Your task to perform on an android device: turn on the 24-hour format for clock Image 0: 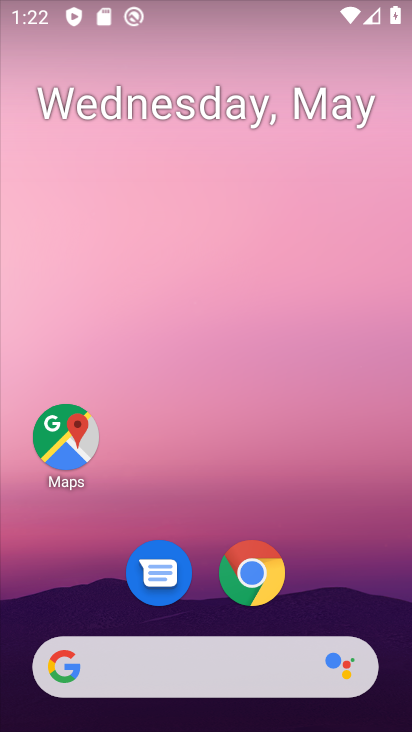
Step 0: drag from (324, 555) to (380, 0)
Your task to perform on an android device: turn on the 24-hour format for clock Image 1: 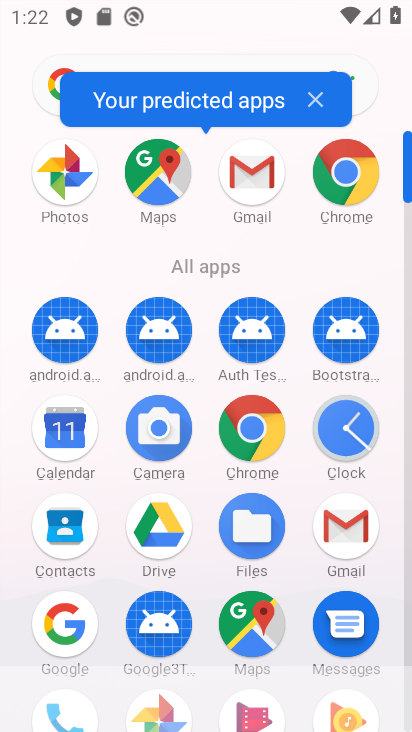
Step 1: click (346, 426)
Your task to perform on an android device: turn on the 24-hour format for clock Image 2: 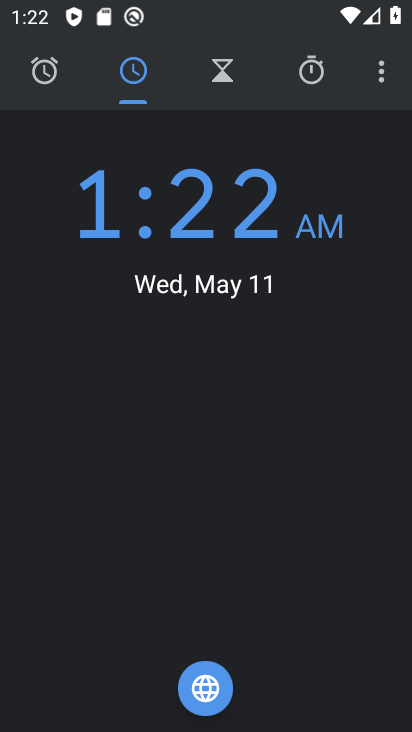
Step 2: click (383, 73)
Your task to perform on an android device: turn on the 24-hour format for clock Image 3: 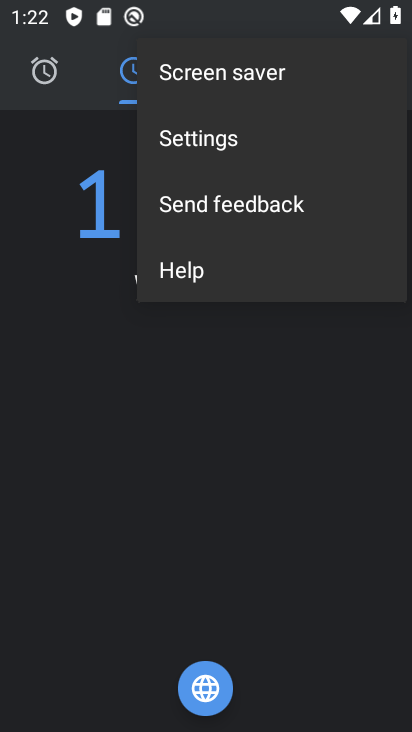
Step 3: click (233, 147)
Your task to perform on an android device: turn on the 24-hour format for clock Image 4: 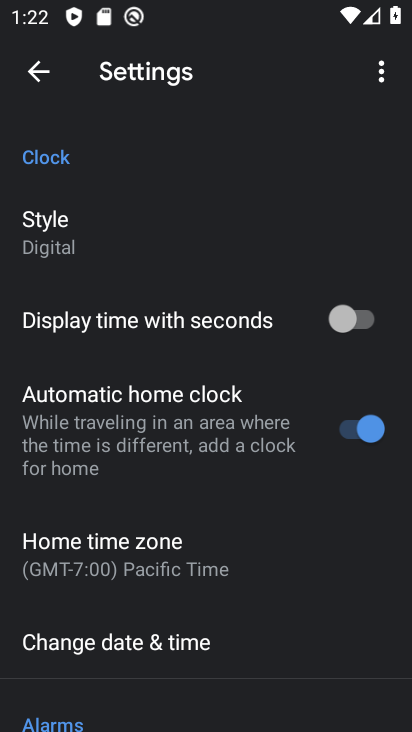
Step 4: click (164, 647)
Your task to perform on an android device: turn on the 24-hour format for clock Image 5: 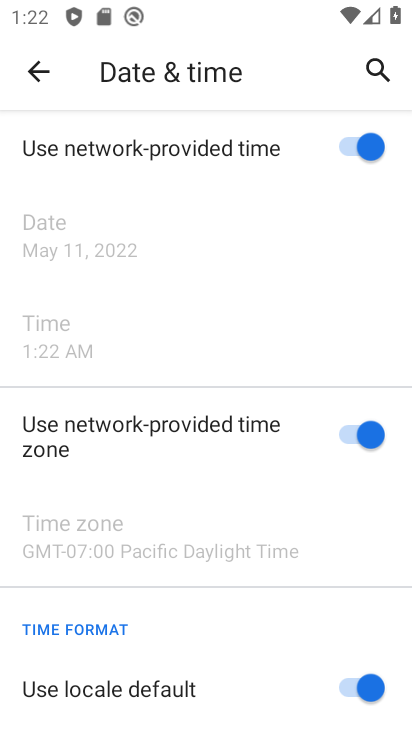
Step 5: drag from (182, 646) to (234, 536)
Your task to perform on an android device: turn on the 24-hour format for clock Image 6: 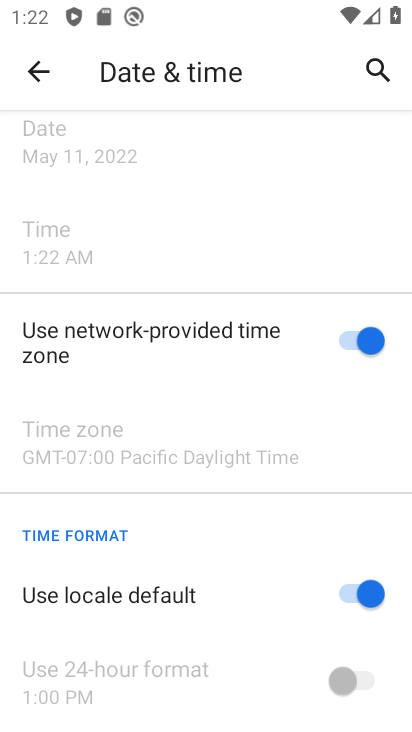
Step 6: click (379, 594)
Your task to perform on an android device: turn on the 24-hour format for clock Image 7: 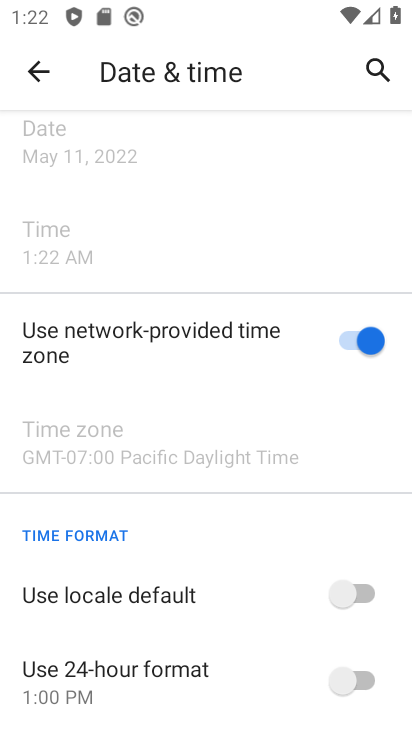
Step 7: click (348, 677)
Your task to perform on an android device: turn on the 24-hour format for clock Image 8: 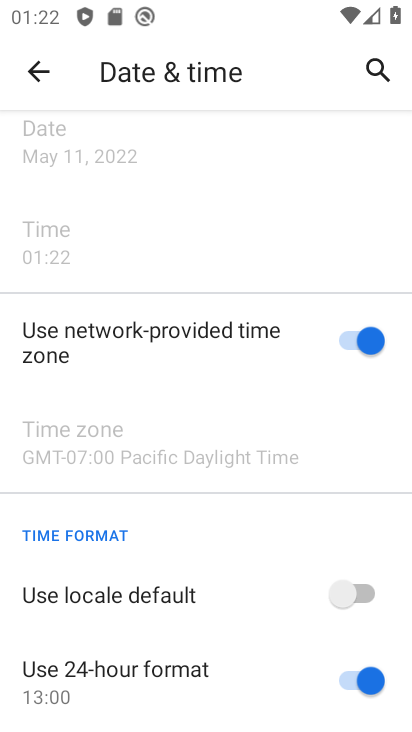
Step 8: task complete